Your task to perform on an android device: Search for pizza restaurants on Maps Image 0: 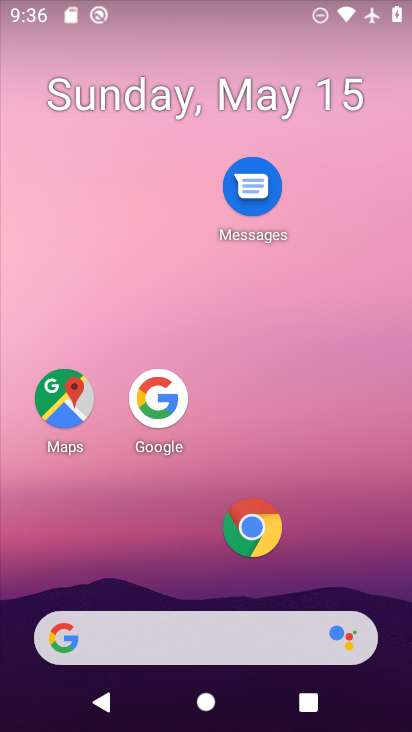
Step 0: press home button
Your task to perform on an android device: Search for pizza restaurants on Maps Image 1: 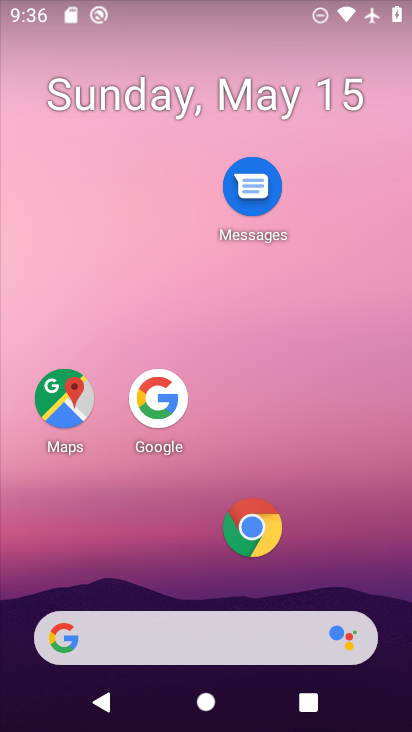
Step 1: click (63, 402)
Your task to perform on an android device: Search for pizza restaurants on Maps Image 2: 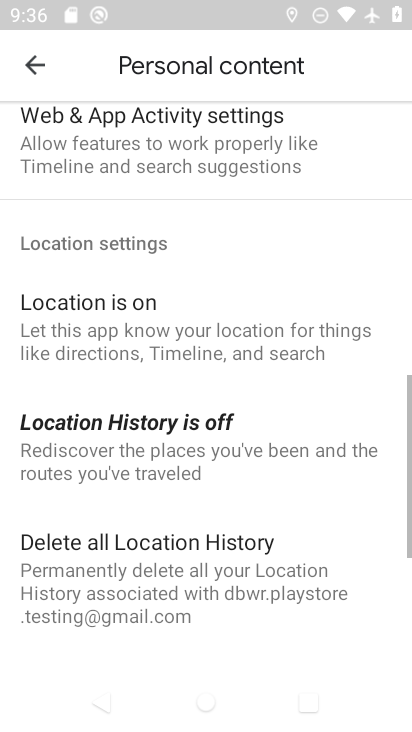
Step 2: click (40, 67)
Your task to perform on an android device: Search for pizza restaurants on Maps Image 3: 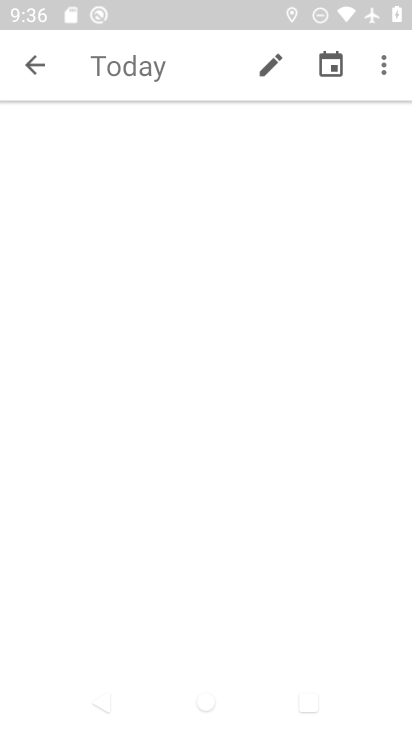
Step 3: click (37, 64)
Your task to perform on an android device: Search for pizza restaurants on Maps Image 4: 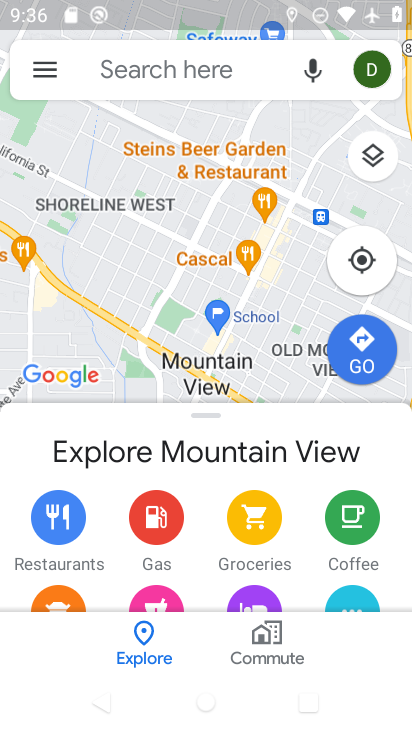
Step 4: click (160, 68)
Your task to perform on an android device: Search for pizza restaurants on Maps Image 5: 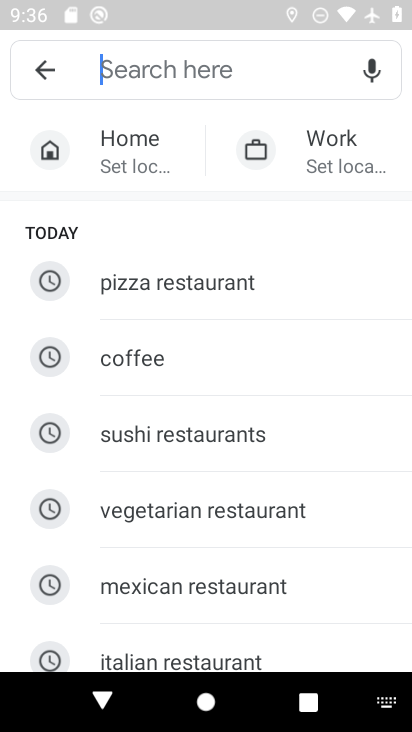
Step 5: click (152, 279)
Your task to perform on an android device: Search for pizza restaurants on Maps Image 6: 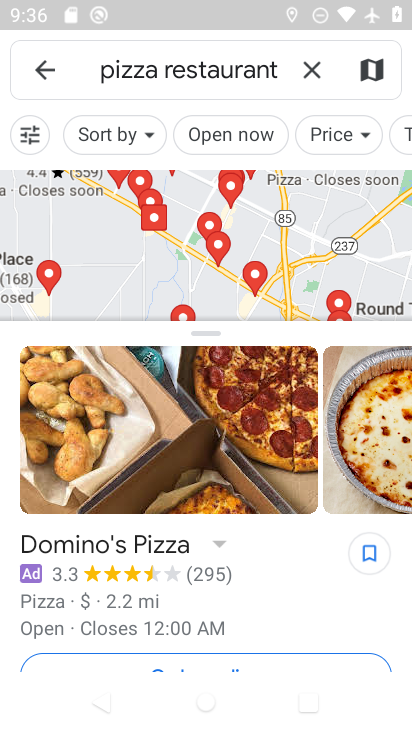
Step 6: task complete